Your task to perform on an android device: Go to Amazon Image 0: 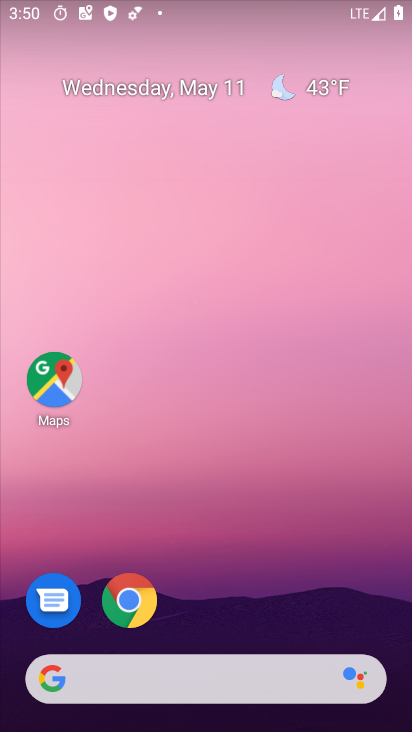
Step 0: click (130, 605)
Your task to perform on an android device: Go to Amazon Image 1: 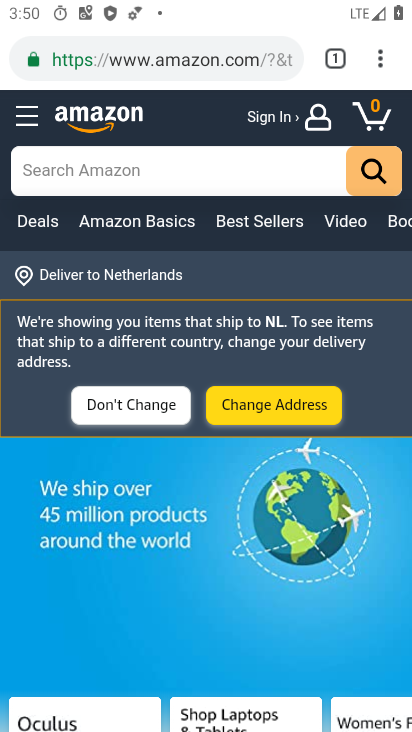
Step 1: task complete